Your task to perform on an android device: toggle improve location accuracy Image 0: 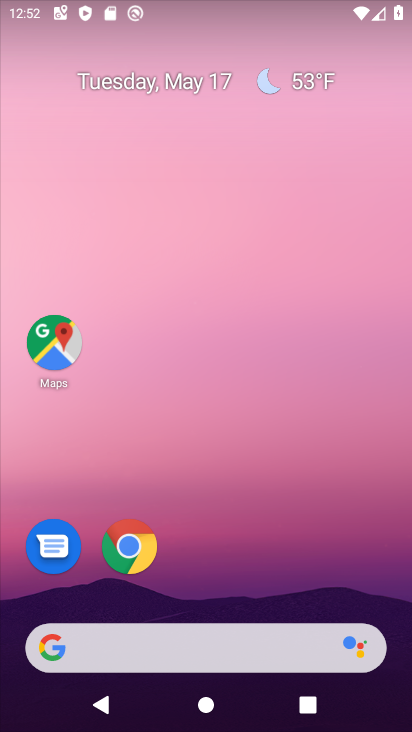
Step 0: drag from (227, 552) to (204, 64)
Your task to perform on an android device: toggle improve location accuracy Image 1: 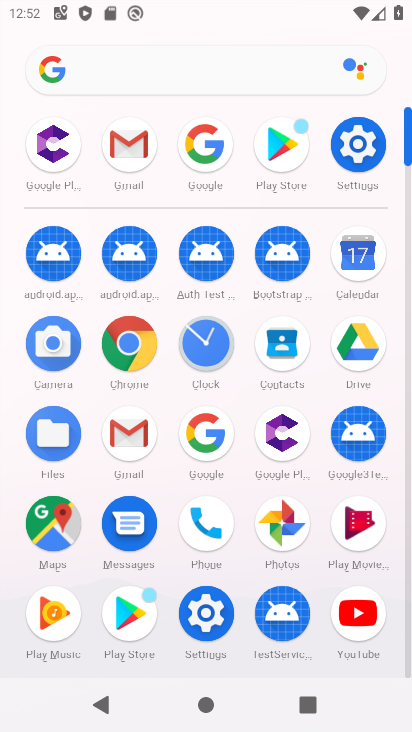
Step 1: click (339, 145)
Your task to perform on an android device: toggle improve location accuracy Image 2: 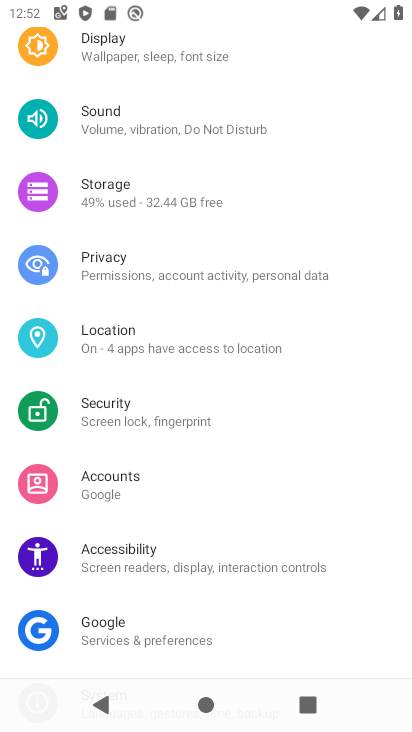
Step 2: click (167, 337)
Your task to perform on an android device: toggle improve location accuracy Image 3: 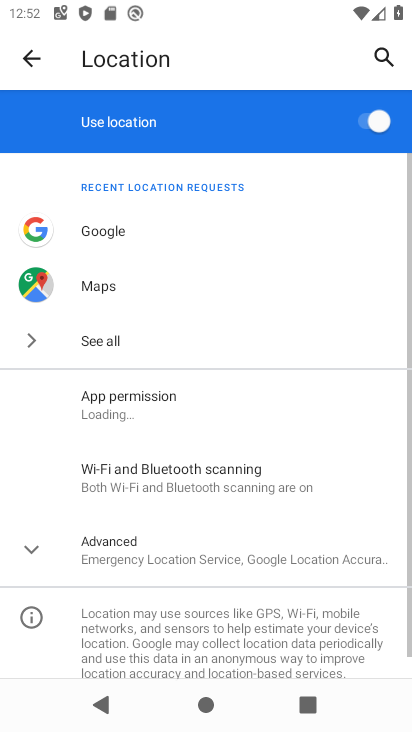
Step 3: click (190, 567)
Your task to perform on an android device: toggle improve location accuracy Image 4: 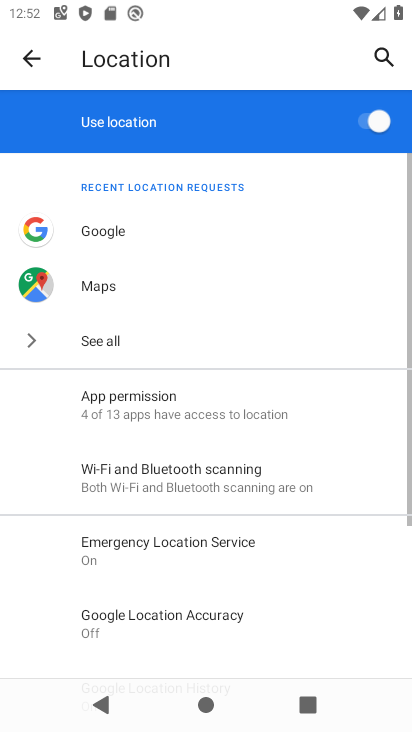
Step 4: drag from (191, 557) to (218, 358)
Your task to perform on an android device: toggle improve location accuracy Image 5: 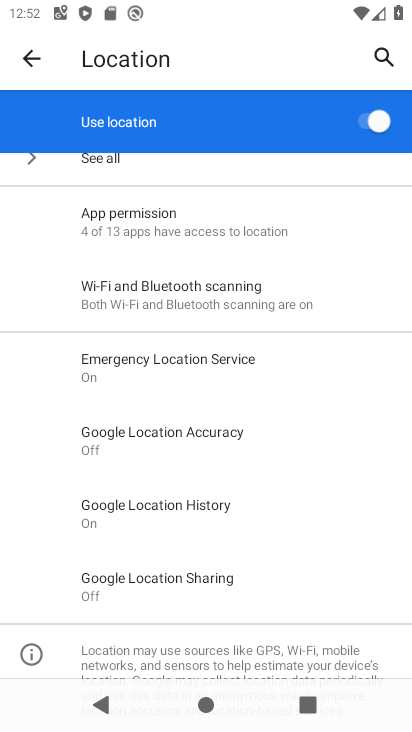
Step 5: click (198, 436)
Your task to perform on an android device: toggle improve location accuracy Image 6: 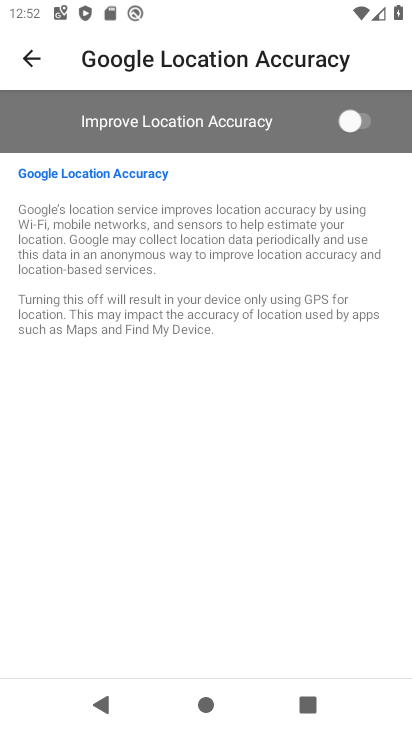
Step 6: click (356, 119)
Your task to perform on an android device: toggle improve location accuracy Image 7: 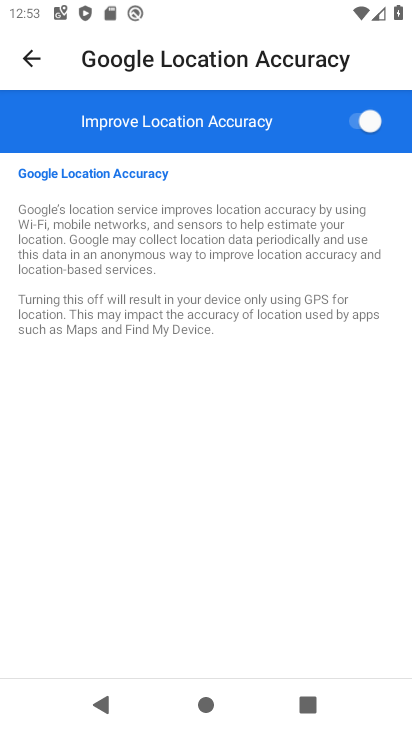
Step 7: task complete